Your task to perform on an android device: Add logitech g910 to the cart on target Image 0: 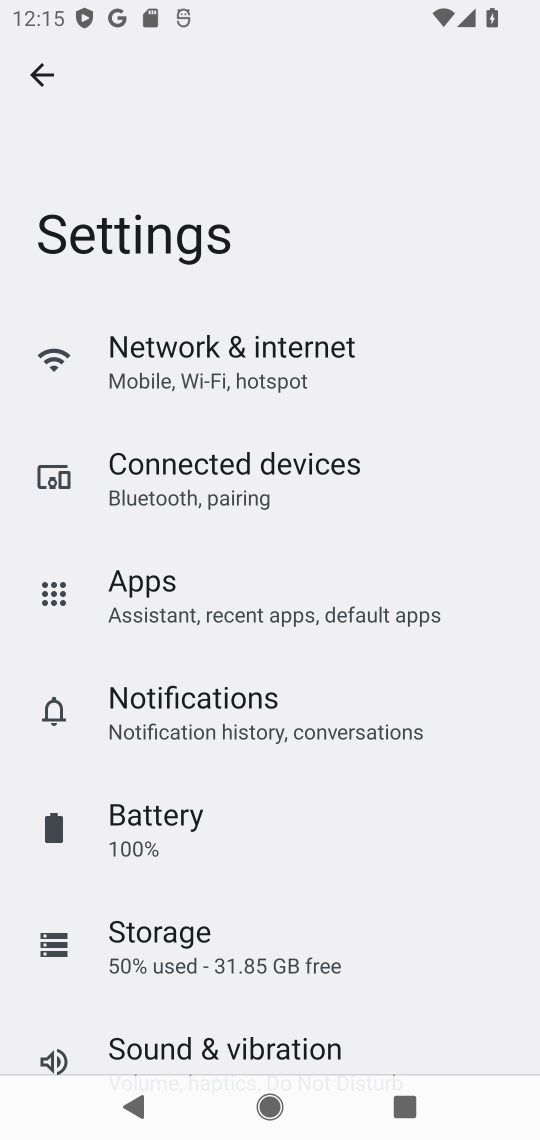
Step 0: press home button
Your task to perform on an android device: Add logitech g910 to the cart on target Image 1: 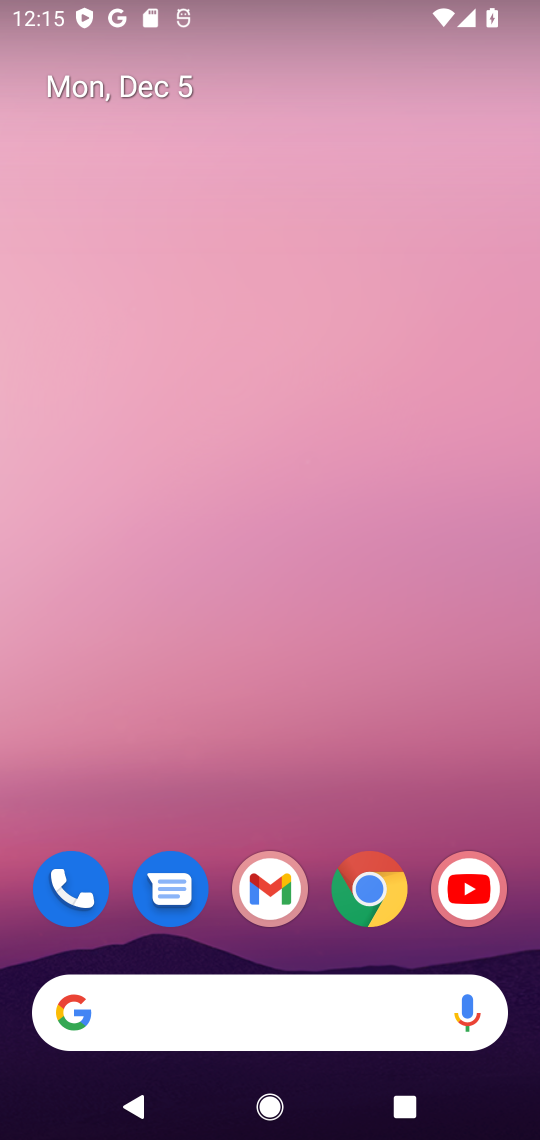
Step 1: click (390, 887)
Your task to perform on an android device: Add logitech g910 to the cart on target Image 2: 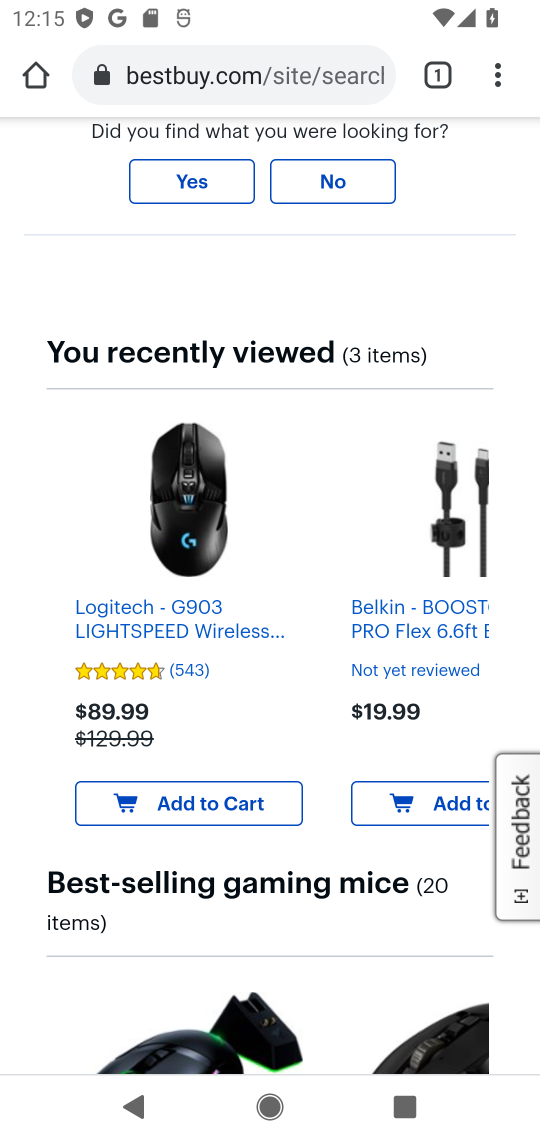
Step 2: click (307, 64)
Your task to perform on an android device: Add logitech g910 to the cart on target Image 3: 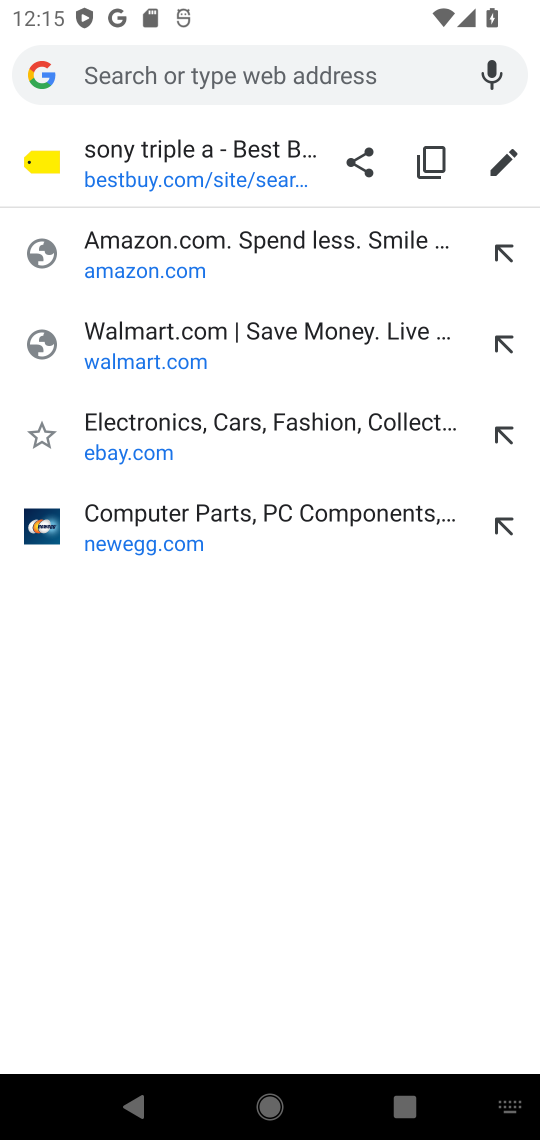
Step 3: type " target"
Your task to perform on an android device: Add logitech g910 to the cart on target Image 4: 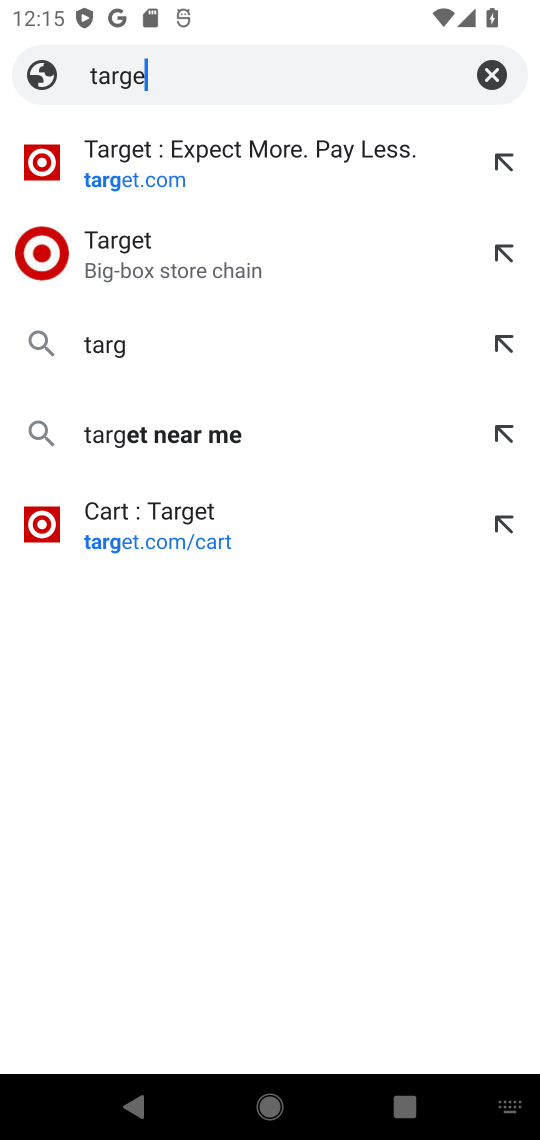
Step 4: press enter
Your task to perform on an android device: Add logitech g910 to the cart on target Image 5: 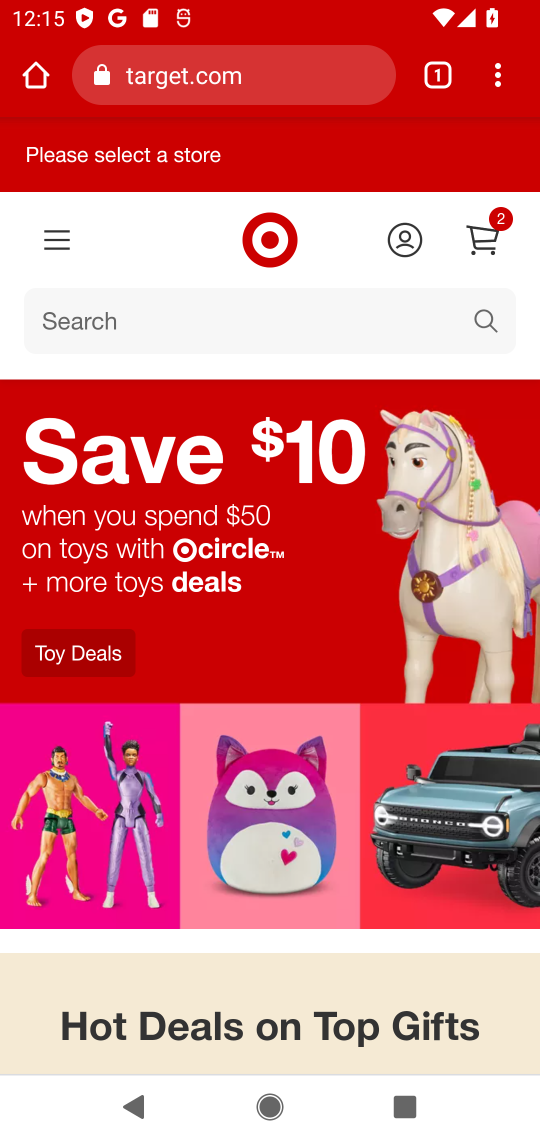
Step 5: click (476, 322)
Your task to perform on an android device: Add logitech g910 to the cart on target Image 6: 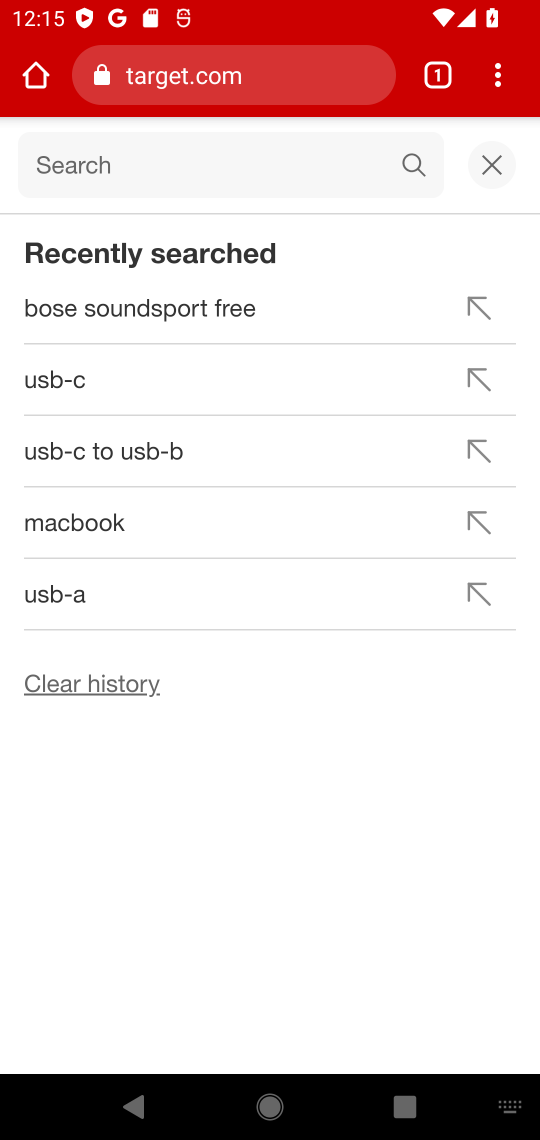
Step 6: type " logitech g910"
Your task to perform on an android device: Add logitech g910 to the cart on target Image 7: 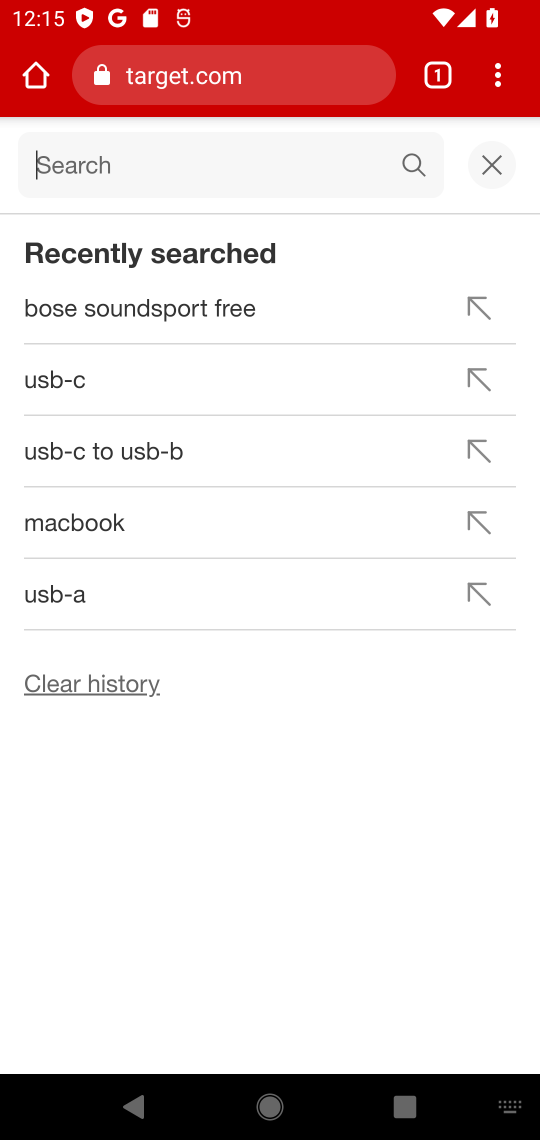
Step 7: press enter
Your task to perform on an android device: Add logitech g910 to the cart on target Image 8: 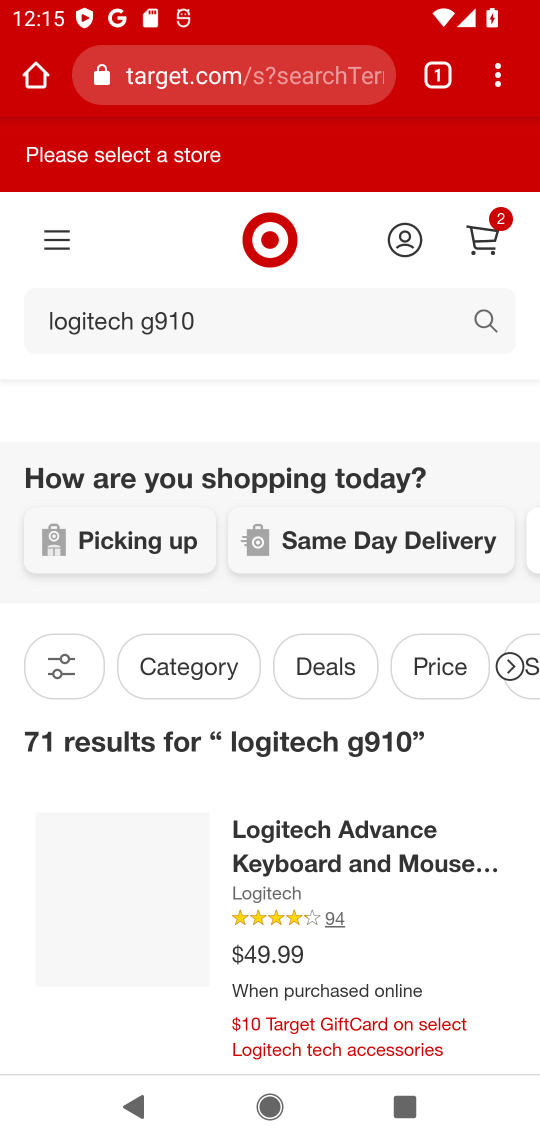
Step 8: task complete